Your task to perform on an android device: open the mobile data screen to see how much data has been used Image 0: 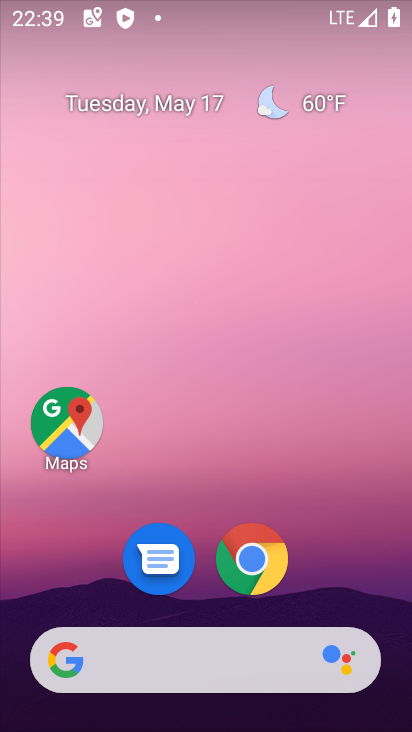
Step 0: drag from (363, 550) to (296, 59)
Your task to perform on an android device: open the mobile data screen to see how much data has been used Image 1: 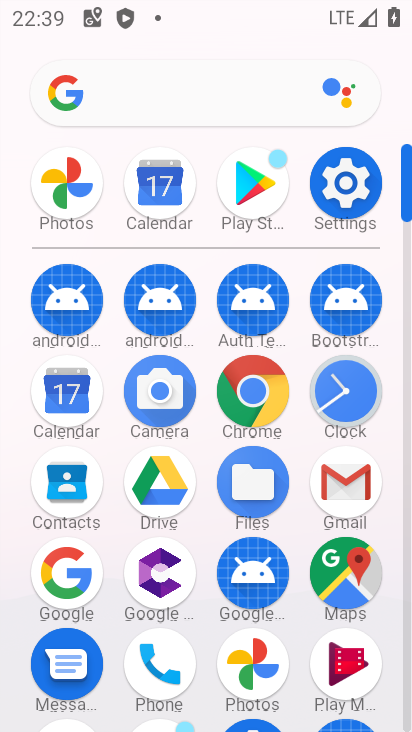
Step 1: click (329, 176)
Your task to perform on an android device: open the mobile data screen to see how much data has been used Image 2: 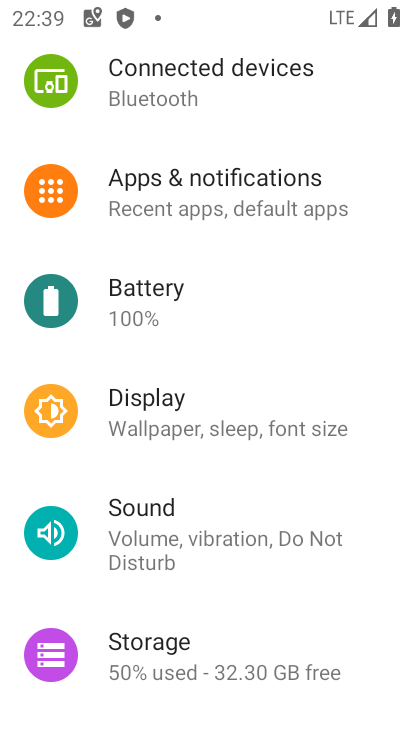
Step 2: drag from (195, 145) to (194, 687)
Your task to perform on an android device: open the mobile data screen to see how much data has been used Image 3: 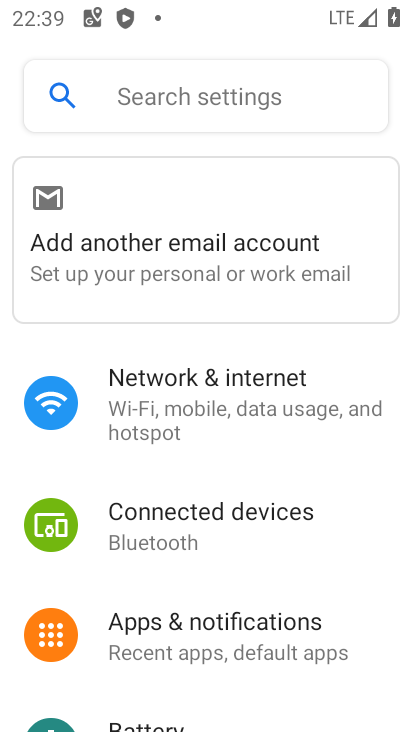
Step 3: click (179, 422)
Your task to perform on an android device: open the mobile data screen to see how much data has been used Image 4: 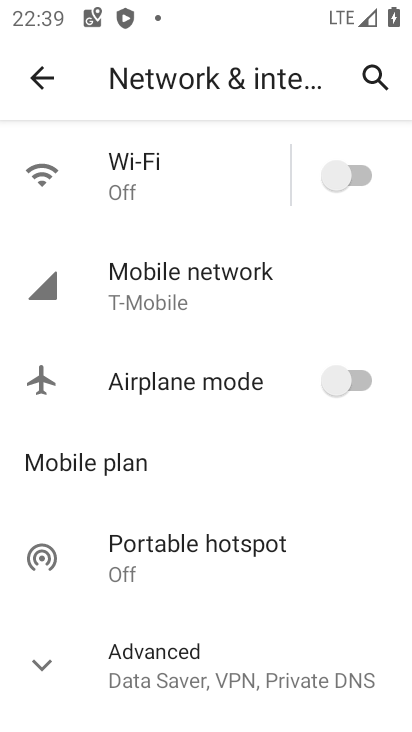
Step 4: click (212, 263)
Your task to perform on an android device: open the mobile data screen to see how much data has been used Image 5: 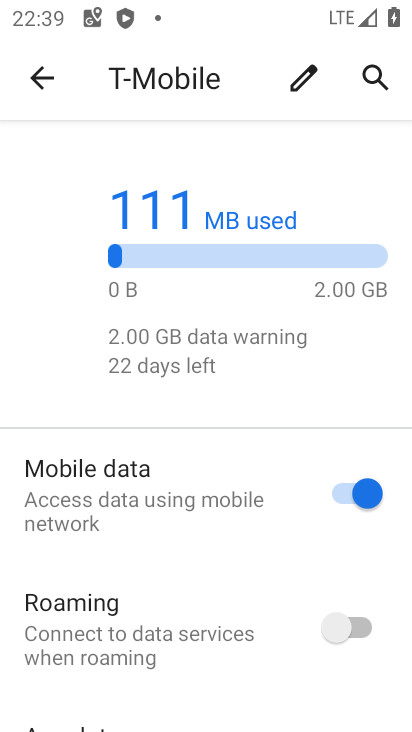
Step 5: task complete